Your task to perform on an android device: When is my next meeting? Image 0: 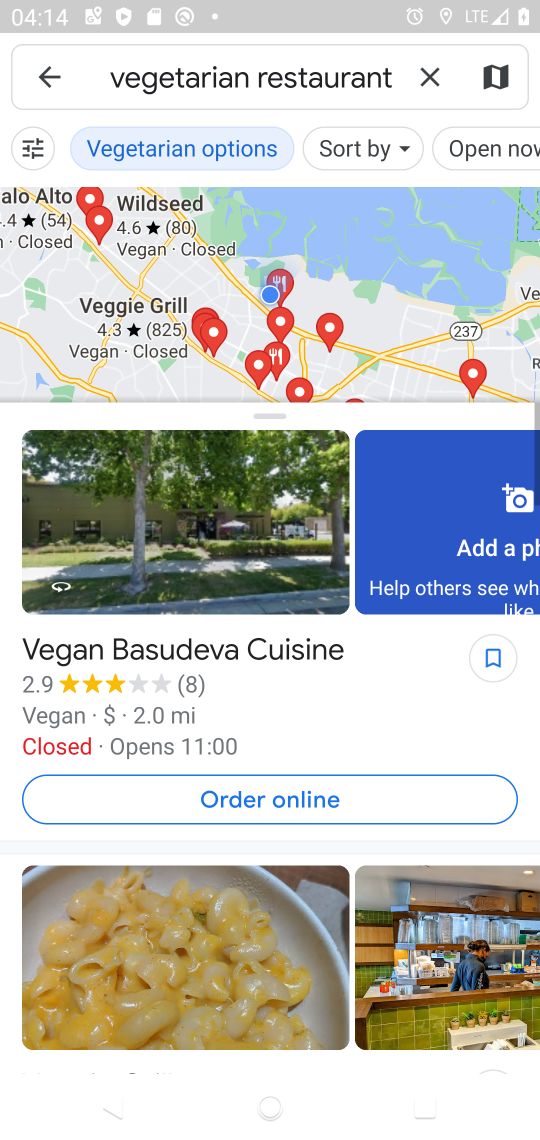
Step 0: press back button
Your task to perform on an android device: When is my next meeting? Image 1: 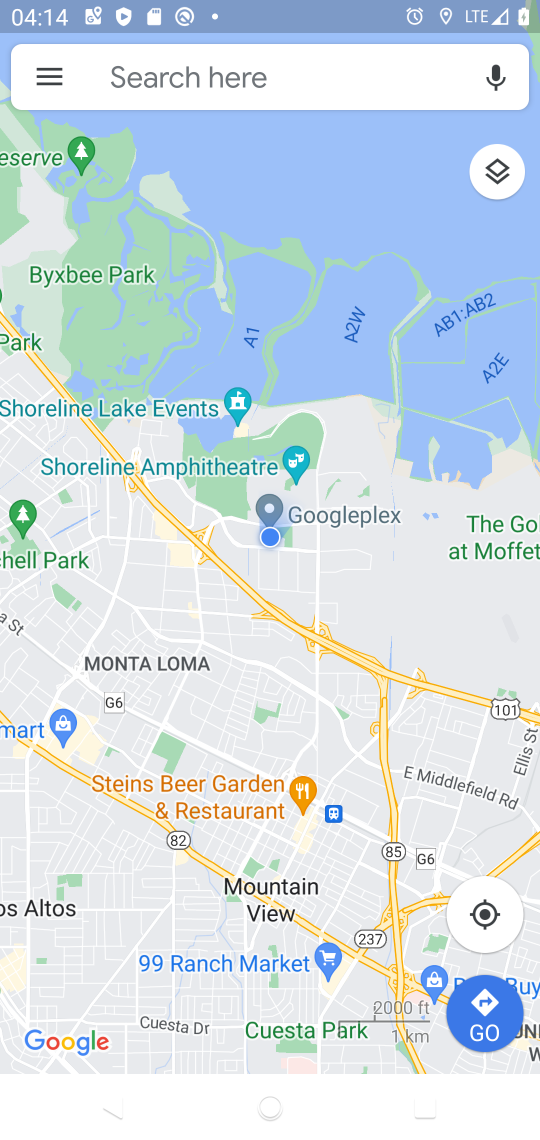
Step 1: press back button
Your task to perform on an android device: When is my next meeting? Image 2: 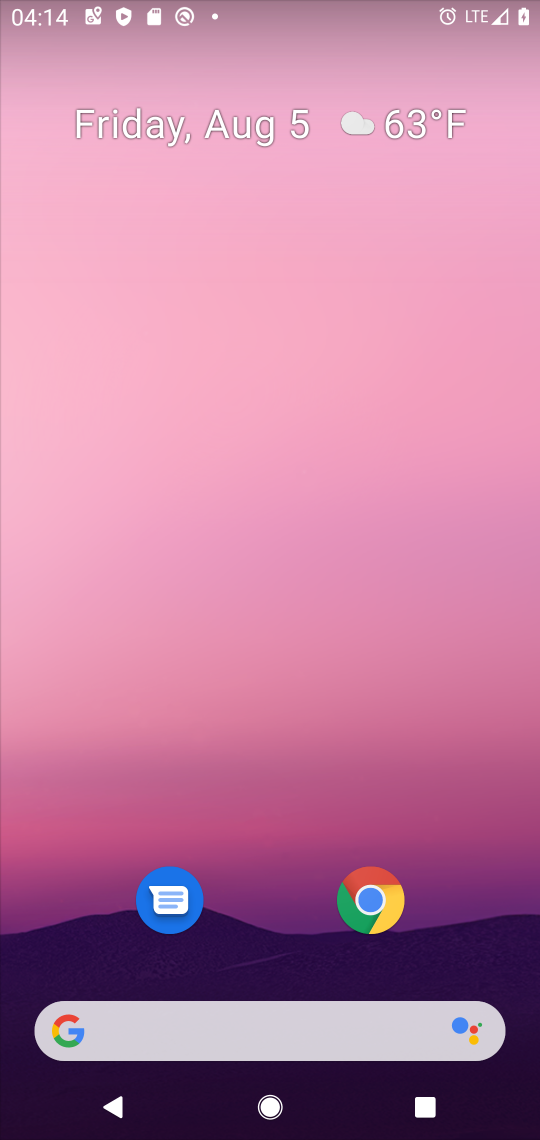
Step 2: drag from (266, 968) to (383, 1)
Your task to perform on an android device: When is my next meeting? Image 3: 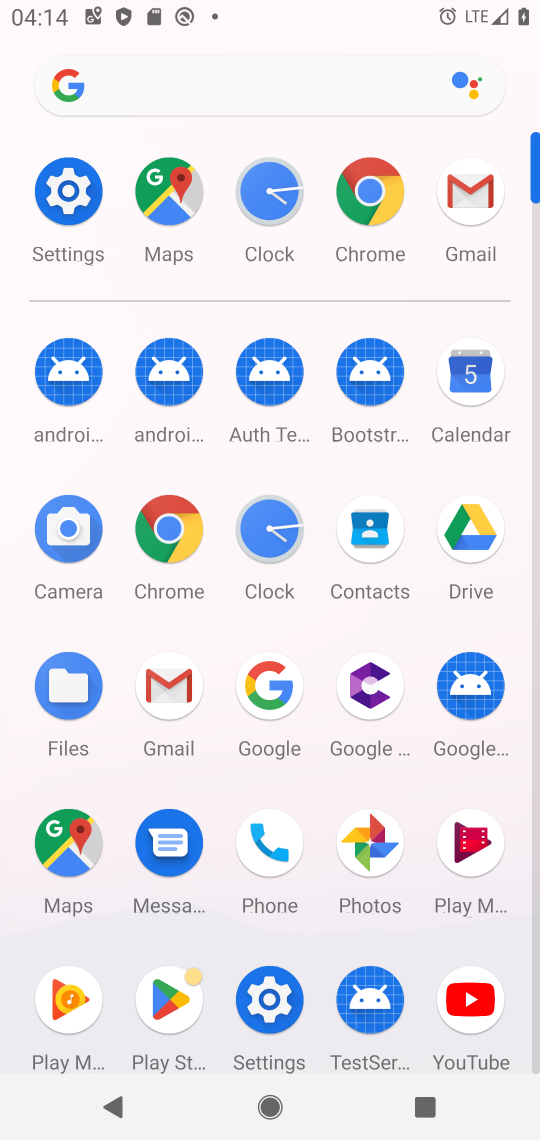
Step 3: click (454, 383)
Your task to perform on an android device: When is my next meeting? Image 4: 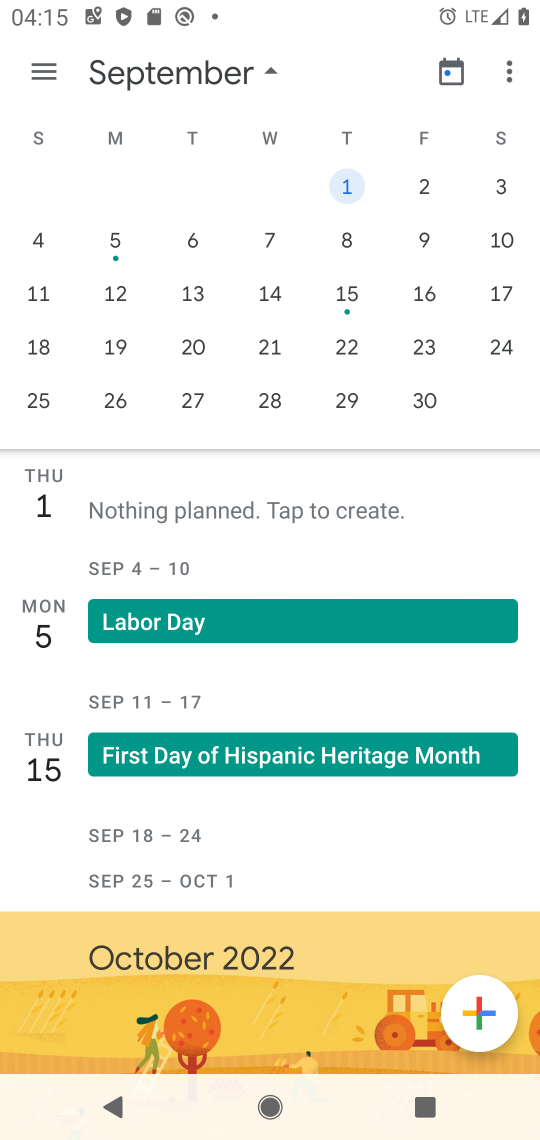
Step 4: drag from (30, 297) to (435, 312)
Your task to perform on an android device: When is my next meeting? Image 5: 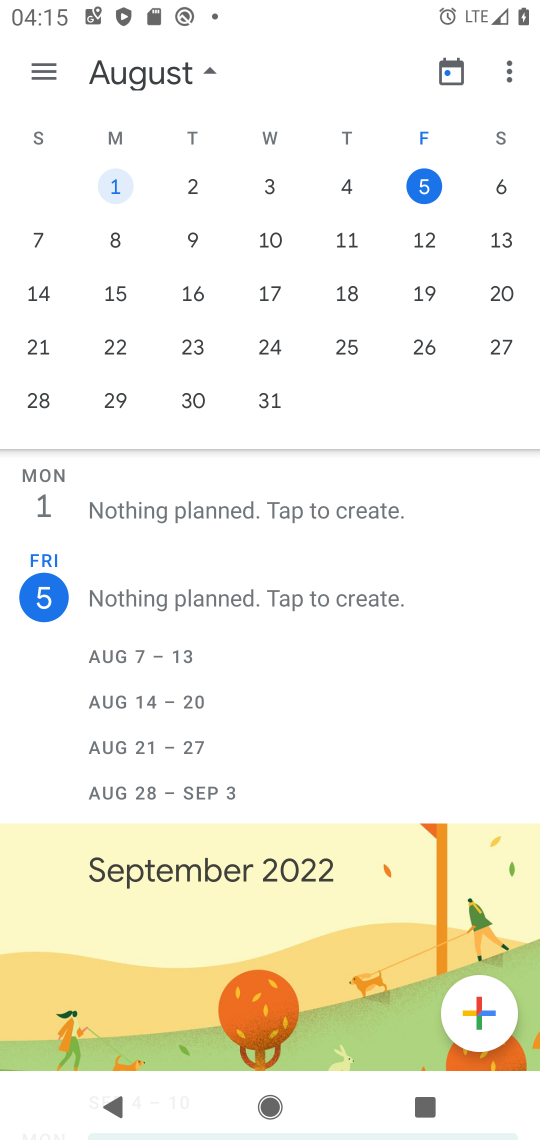
Step 5: click (427, 186)
Your task to perform on an android device: When is my next meeting? Image 6: 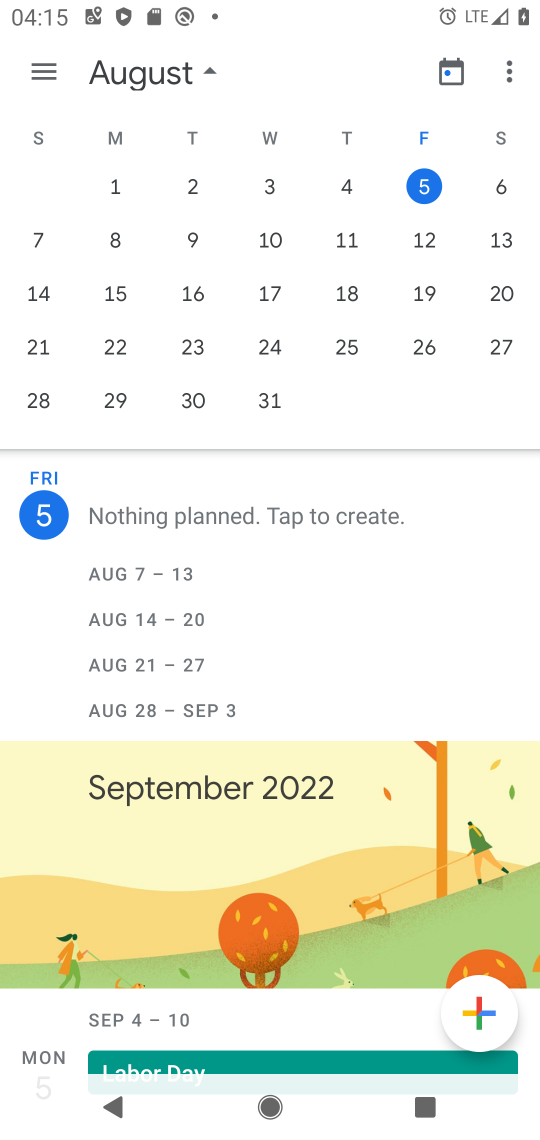
Step 6: task complete